Your task to perform on an android device: Go to internet settings Image 0: 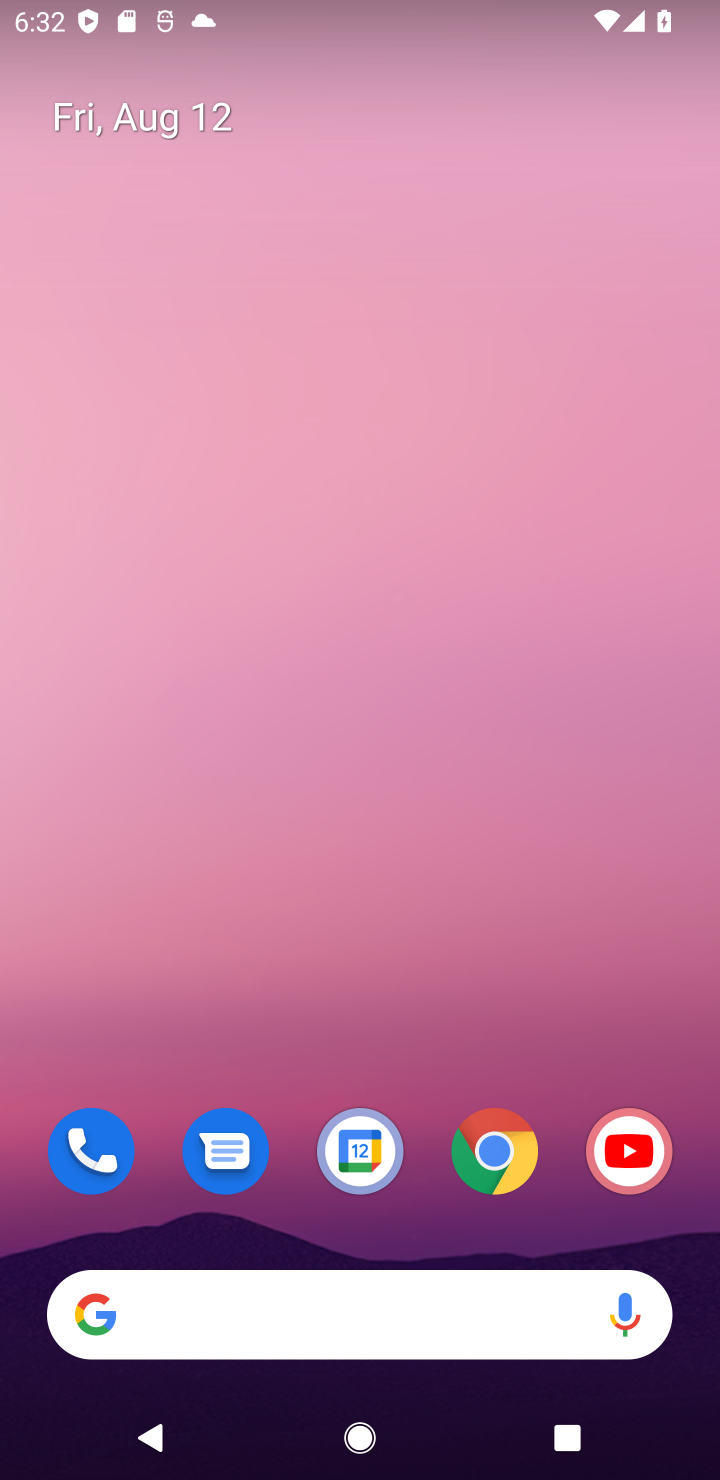
Step 0: drag from (429, 745) to (429, 67)
Your task to perform on an android device: Go to internet settings Image 1: 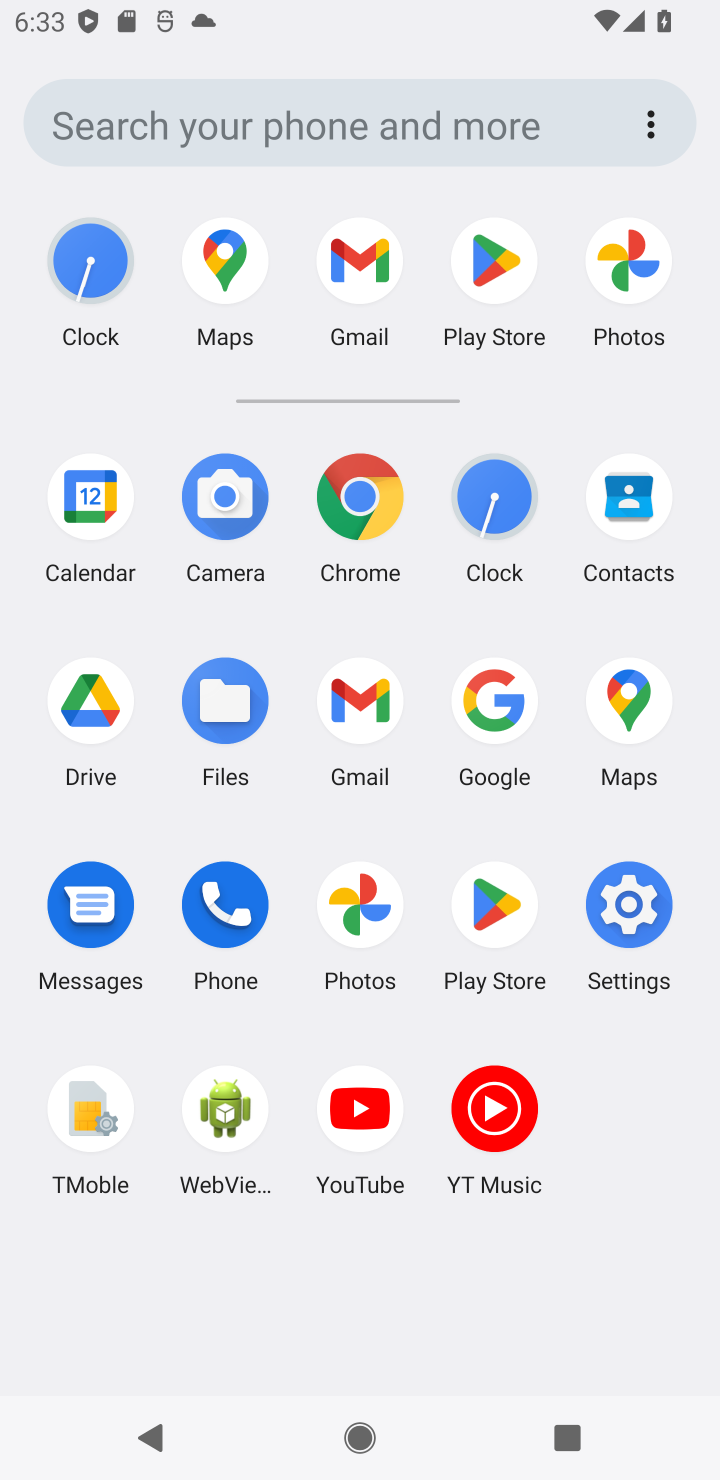
Step 1: click (637, 901)
Your task to perform on an android device: Go to internet settings Image 2: 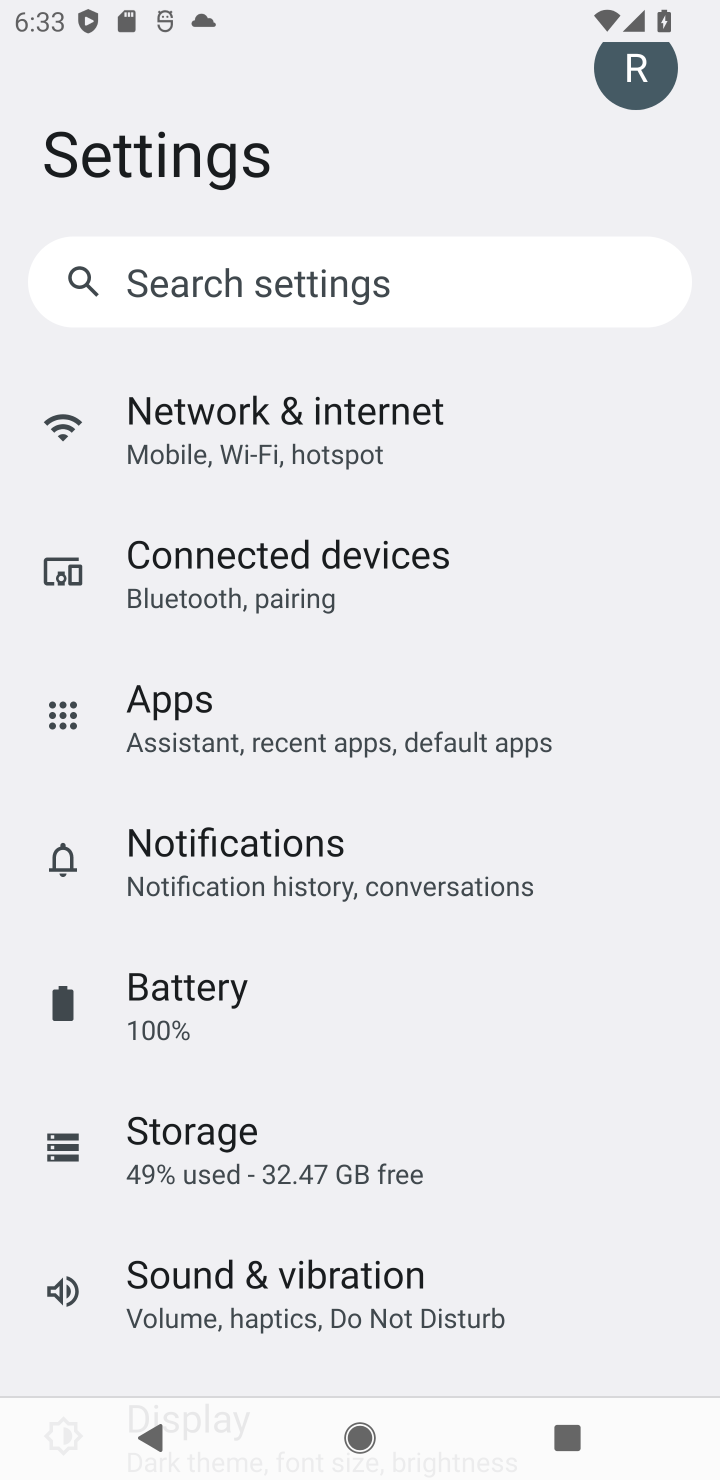
Step 2: click (315, 447)
Your task to perform on an android device: Go to internet settings Image 3: 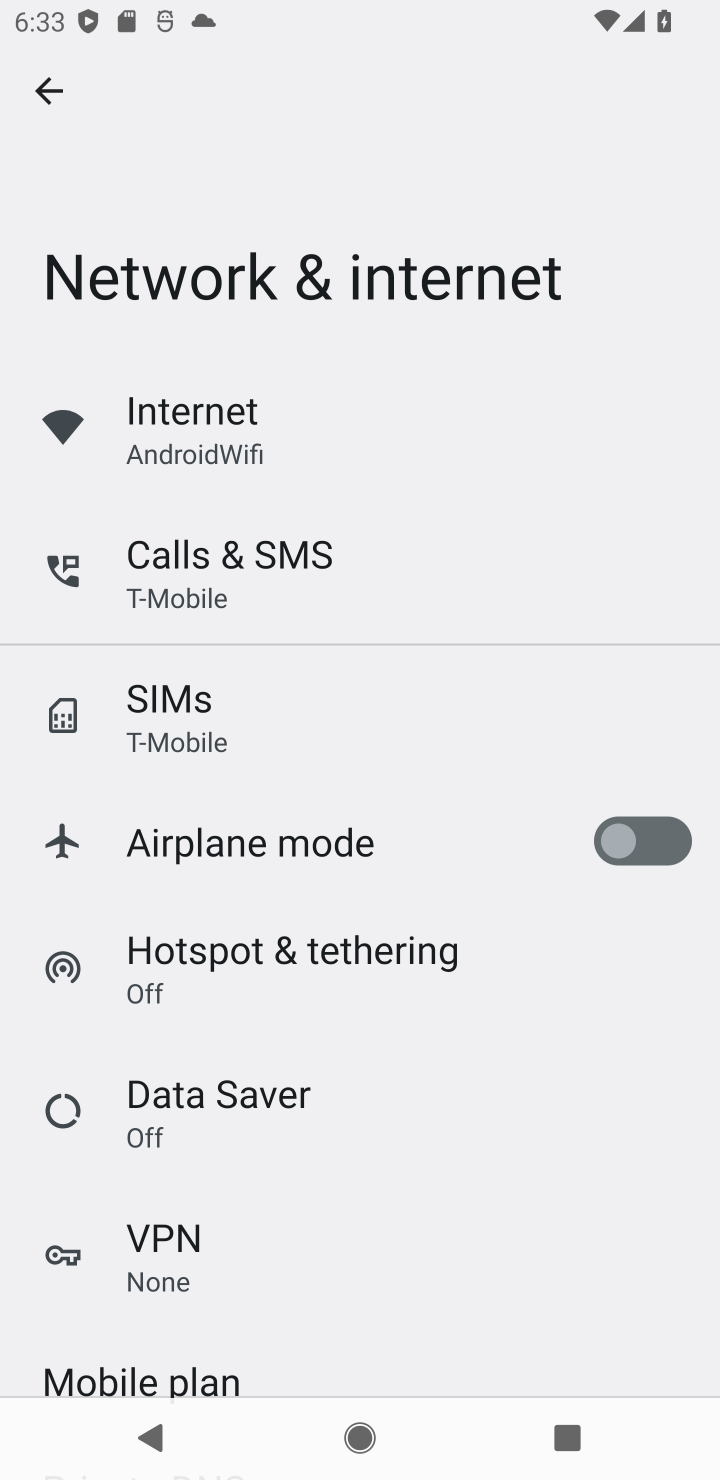
Step 3: click (210, 414)
Your task to perform on an android device: Go to internet settings Image 4: 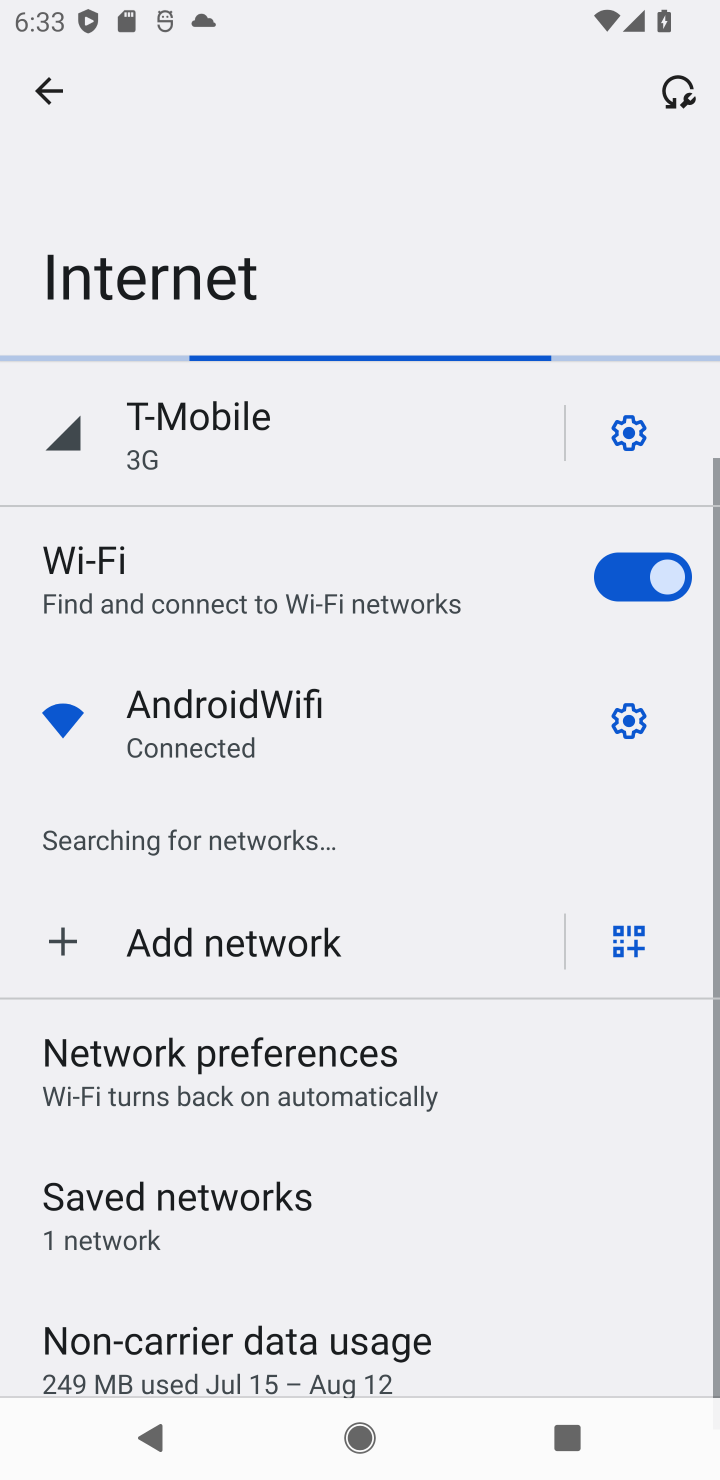
Step 4: task complete